Your task to perform on an android device: Open the Play Movies app and select the watchlist tab. Image 0: 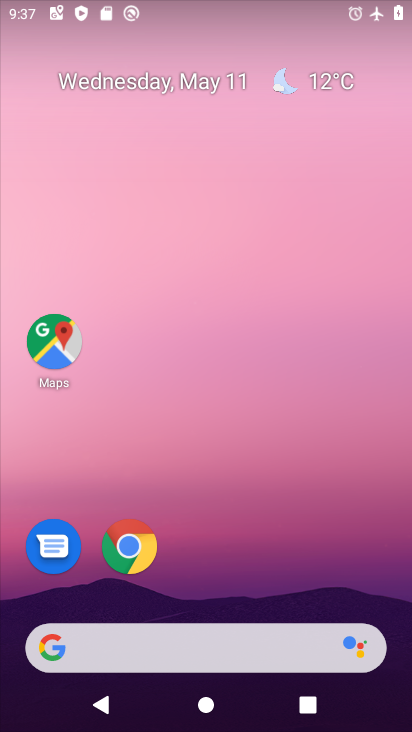
Step 0: drag from (395, 633) to (324, 103)
Your task to perform on an android device: Open the Play Movies app and select the watchlist tab. Image 1: 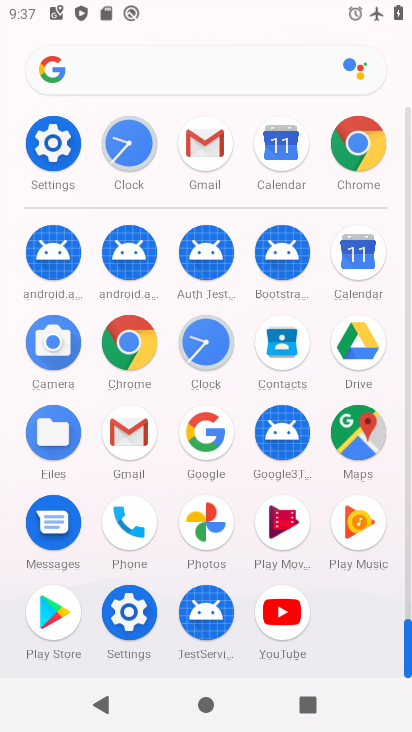
Step 1: click (286, 521)
Your task to perform on an android device: Open the Play Movies app and select the watchlist tab. Image 2: 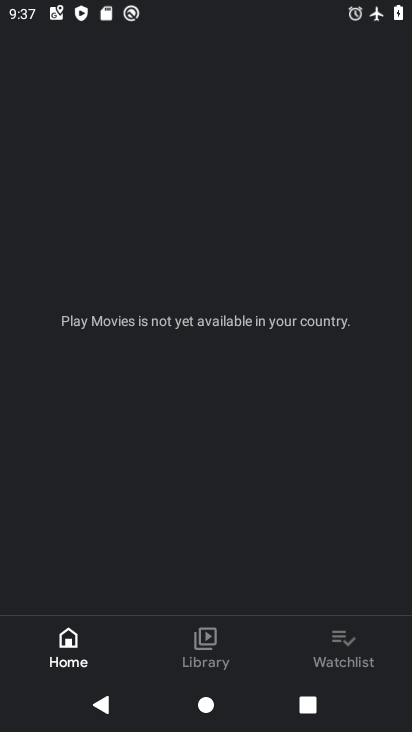
Step 2: click (342, 645)
Your task to perform on an android device: Open the Play Movies app and select the watchlist tab. Image 3: 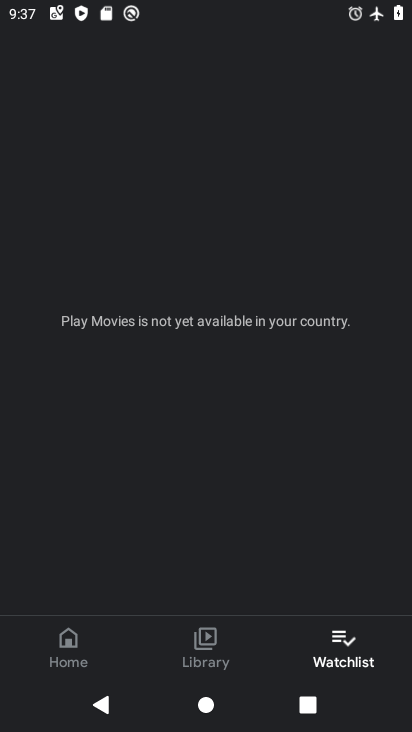
Step 3: task complete